Your task to perform on an android device: turn on the 24-hour format for clock Image 0: 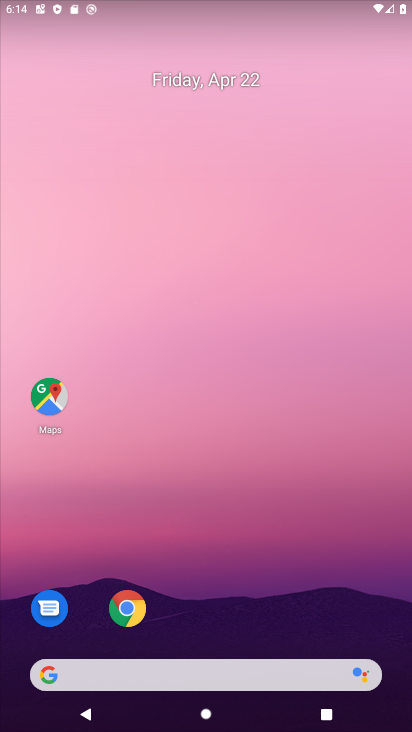
Step 0: drag from (249, 599) to (181, 148)
Your task to perform on an android device: turn on the 24-hour format for clock Image 1: 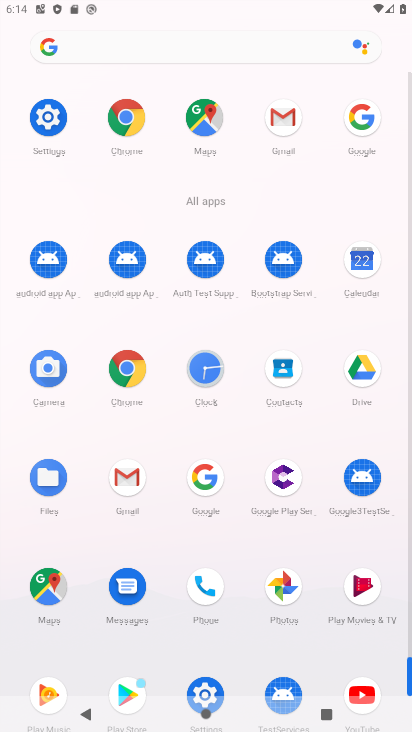
Step 1: click (50, 121)
Your task to perform on an android device: turn on the 24-hour format for clock Image 2: 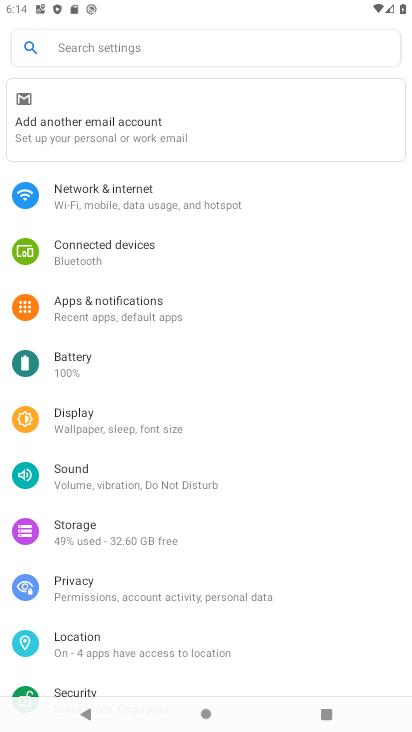
Step 2: click (137, 349)
Your task to perform on an android device: turn on the 24-hour format for clock Image 3: 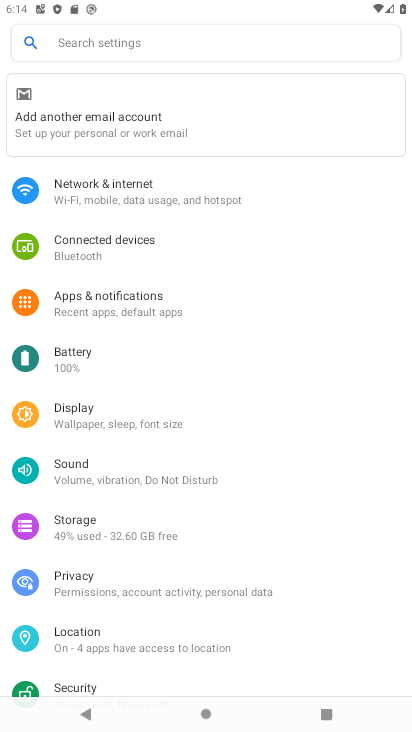
Step 3: press back button
Your task to perform on an android device: turn on the 24-hour format for clock Image 4: 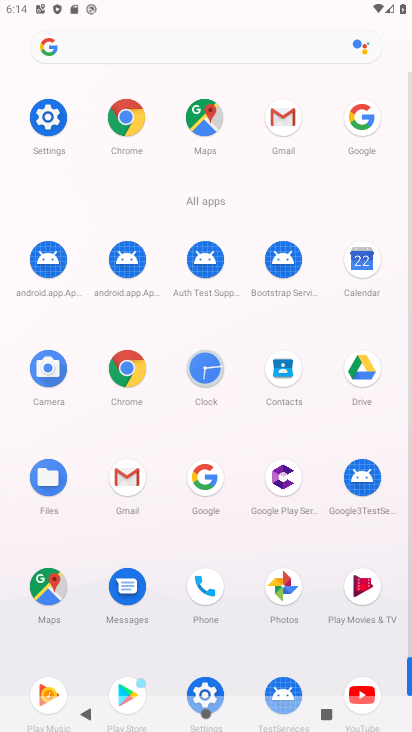
Step 4: click (212, 372)
Your task to perform on an android device: turn on the 24-hour format for clock Image 5: 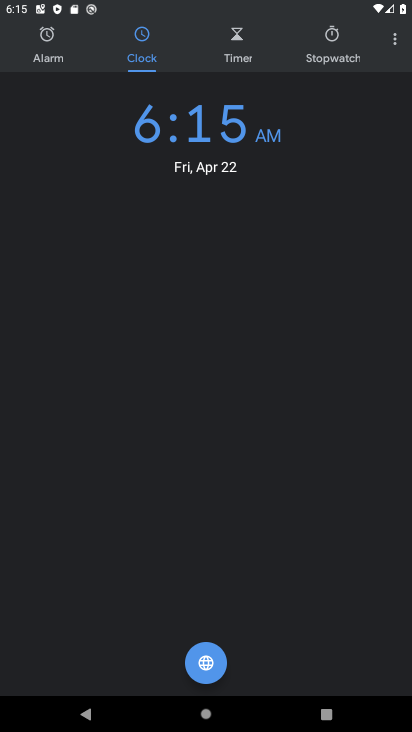
Step 5: click (397, 45)
Your task to perform on an android device: turn on the 24-hour format for clock Image 6: 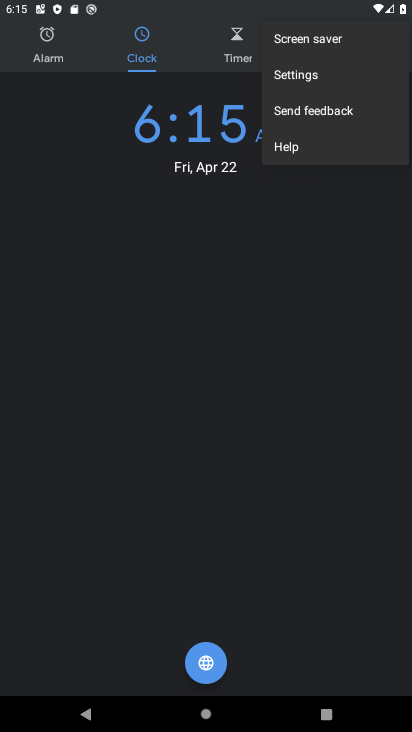
Step 6: click (310, 74)
Your task to perform on an android device: turn on the 24-hour format for clock Image 7: 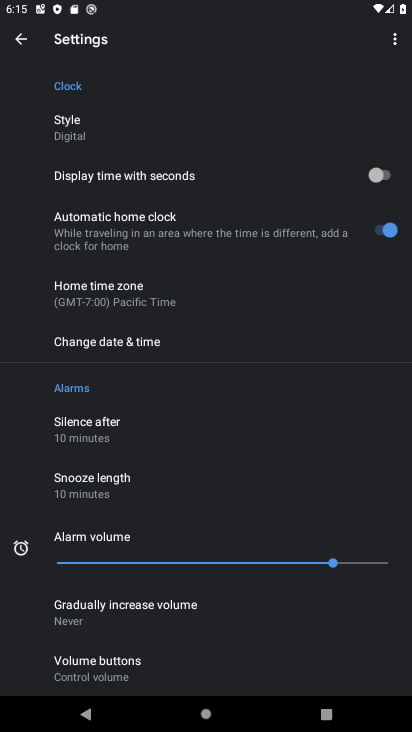
Step 7: click (98, 328)
Your task to perform on an android device: turn on the 24-hour format for clock Image 8: 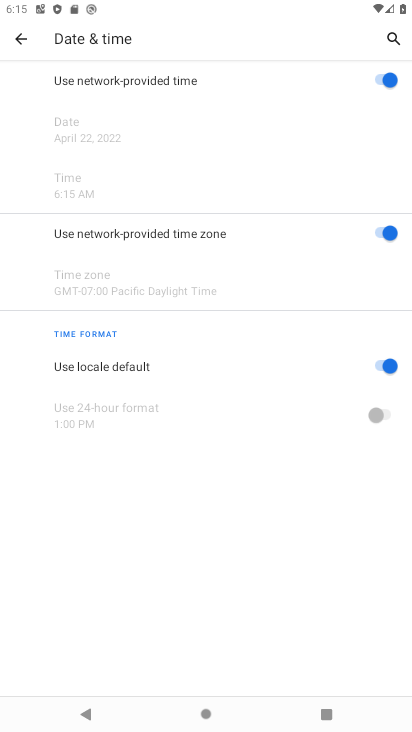
Step 8: click (380, 369)
Your task to perform on an android device: turn on the 24-hour format for clock Image 9: 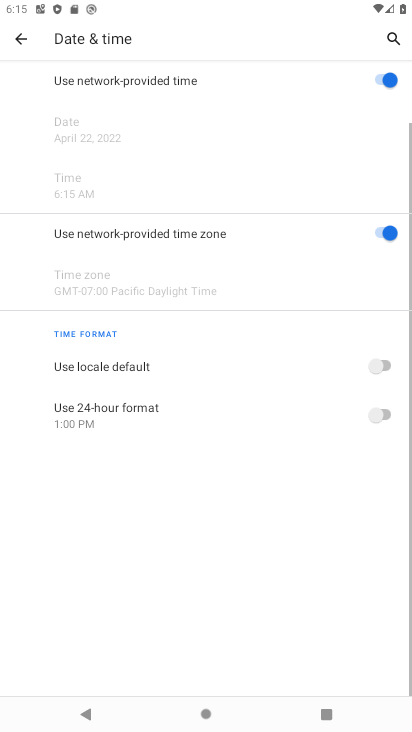
Step 9: click (384, 417)
Your task to perform on an android device: turn on the 24-hour format for clock Image 10: 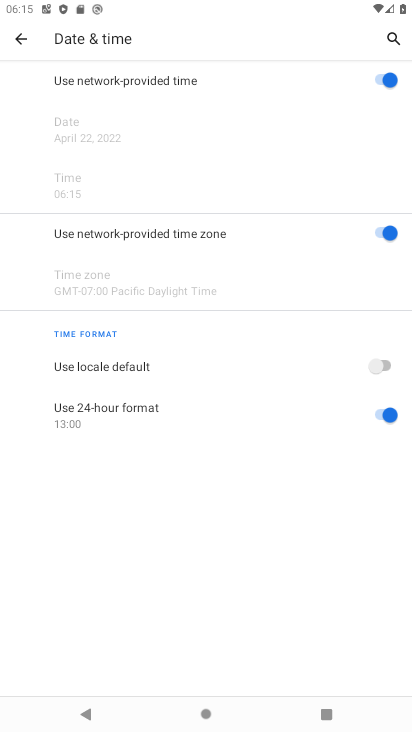
Step 10: task complete